Your task to perform on an android device: turn notification dots on Image 0: 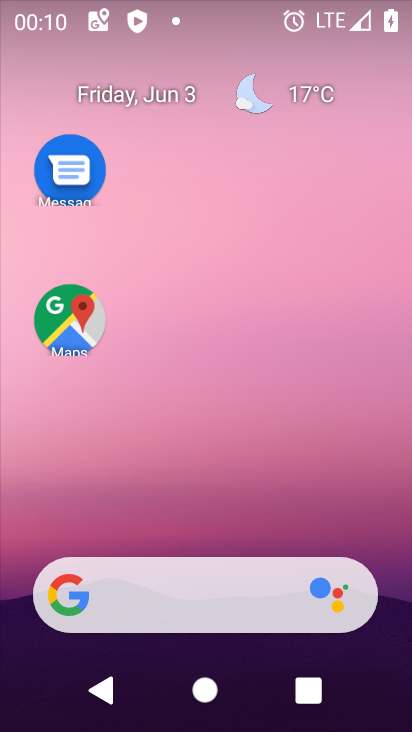
Step 0: press home button
Your task to perform on an android device: turn notification dots on Image 1: 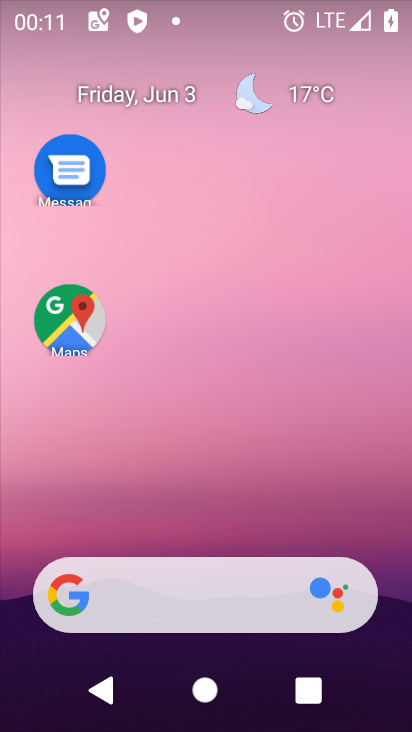
Step 1: drag from (386, 680) to (211, 52)
Your task to perform on an android device: turn notification dots on Image 2: 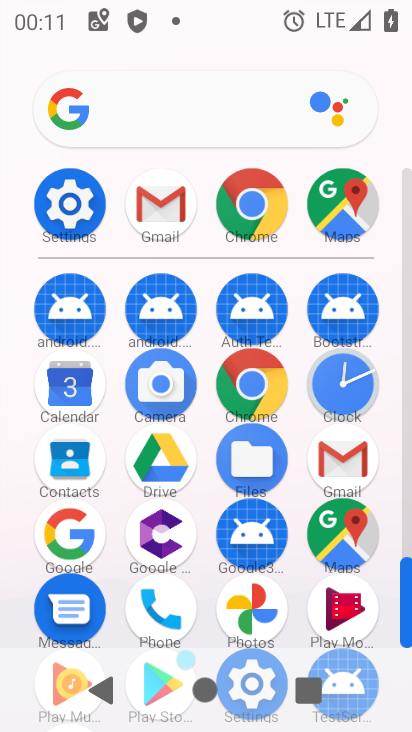
Step 2: click (70, 216)
Your task to perform on an android device: turn notification dots on Image 3: 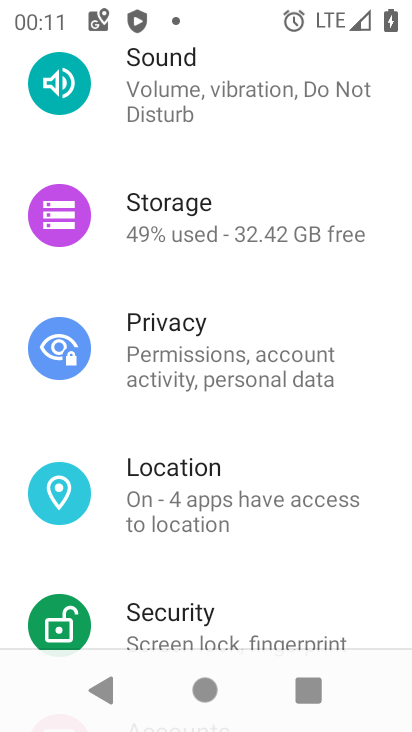
Step 3: drag from (293, 578) to (186, 119)
Your task to perform on an android device: turn notification dots on Image 4: 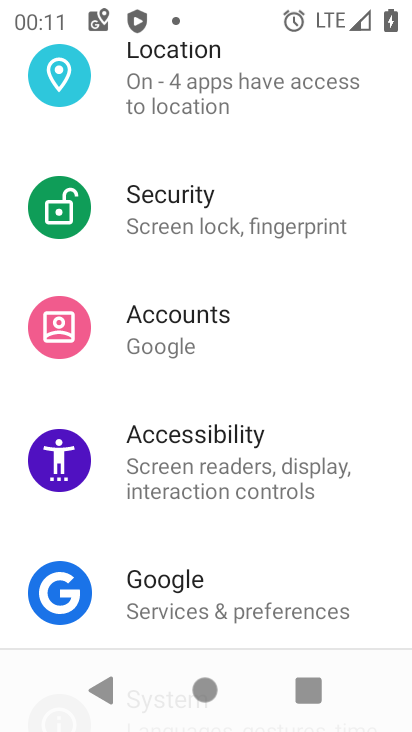
Step 4: drag from (224, 536) to (198, 295)
Your task to perform on an android device: turn notification dots on Image 5: 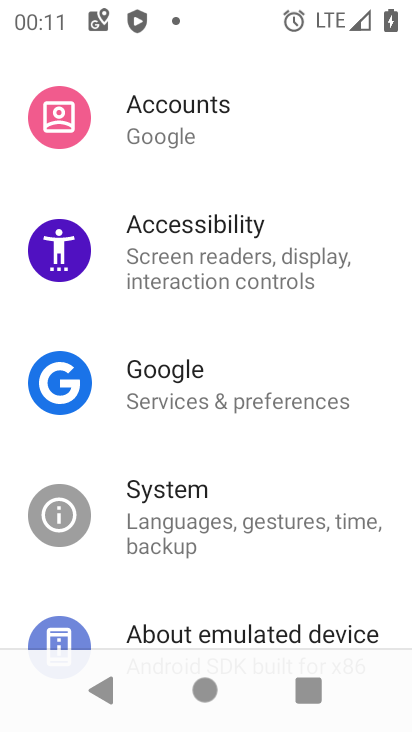
Step 5: drag from (188, 327) to (266, 724)
Your task to perform on an android device: turn notification dots on Image 6: 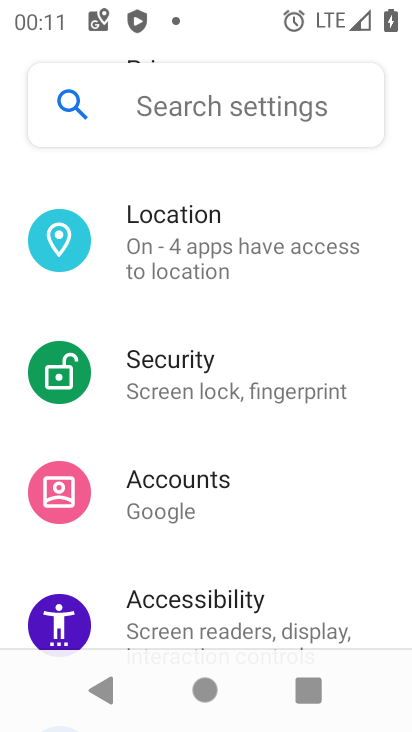
Step 6: drag from (187, 296) to (288, 704)
Your task to perform on an android device: turn notification dots on Image 7: 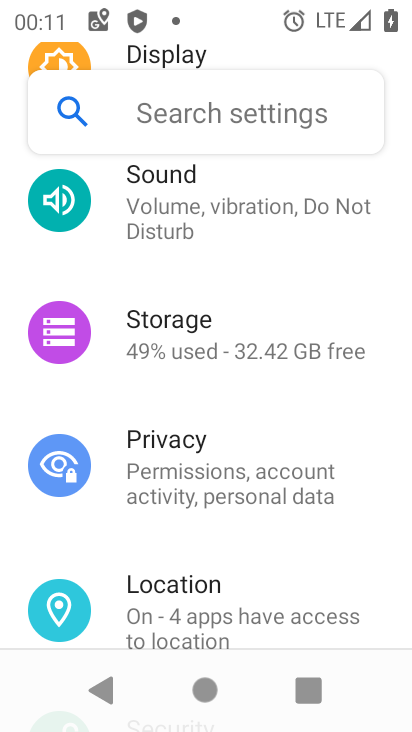
Step 7: drag from (220, 329) to (215, 638)
Your task to perform on an android device: turn notification dots on Image 8: 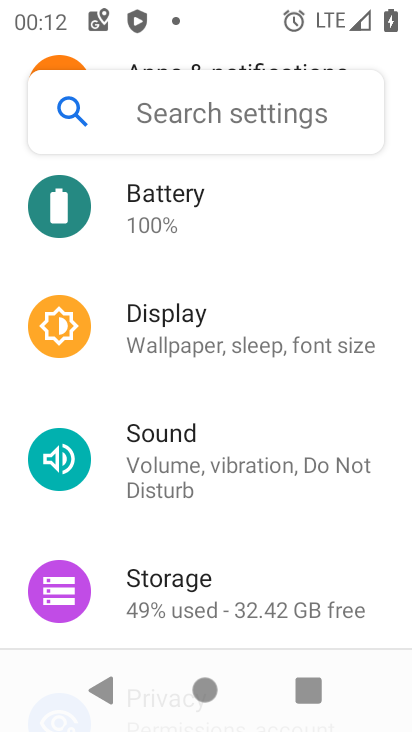
Step 8: drag from (243, 178) to (275, 656)
Your task to perform on an android device: turn notification dots on Image 9: 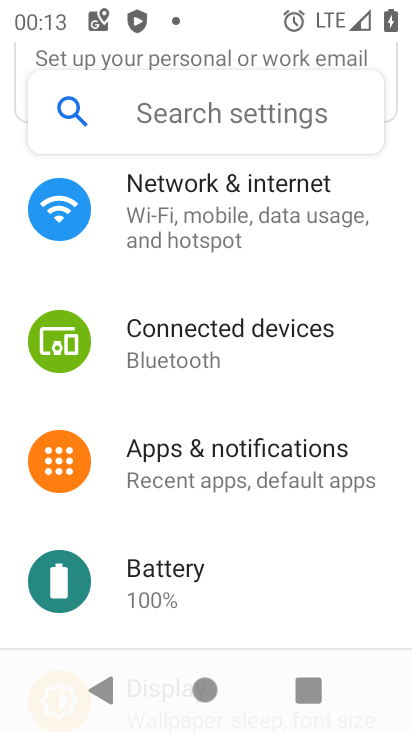
Step 9: drag from (159, 491) to (160, 360)
Your task to perform on an android device: turn notification dots on Image 10: 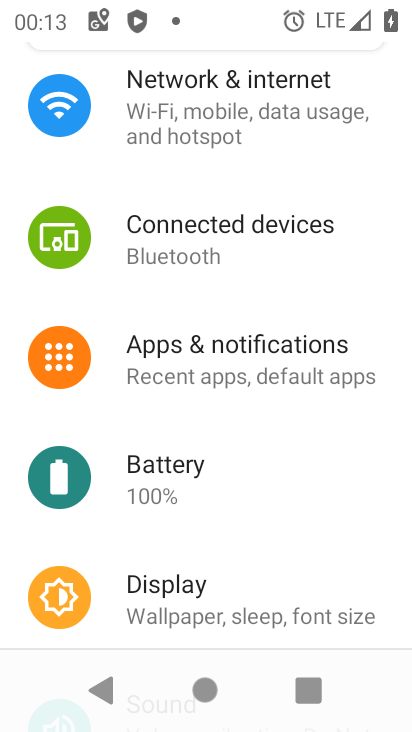
Step 10: click (160, 357)
Your task to perform on an android device: turn notification dots on Image 11: 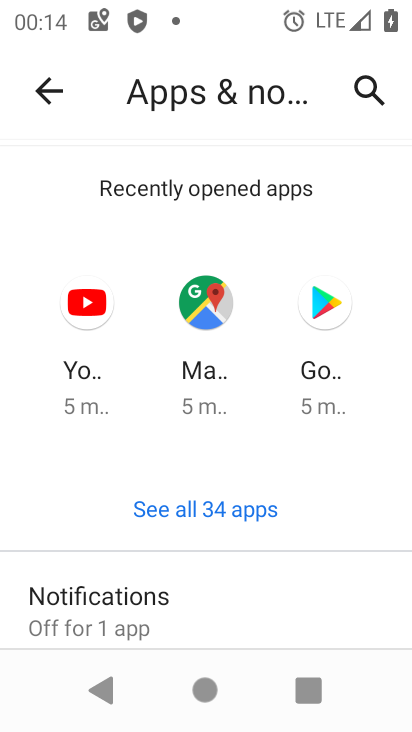
Step 11: drag from (377, 614) to (345, 504)
Your task to perform on an android device: turn notification dots on Image 12: 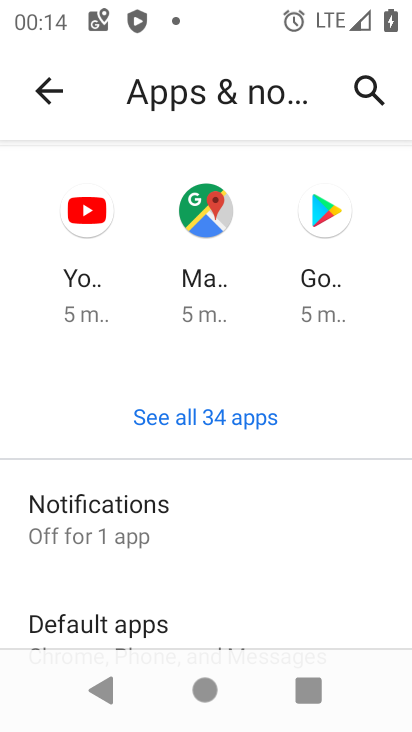
Step 12: click (174, 527)
Your task to perform on an android device: turn notification dots on Image 13: 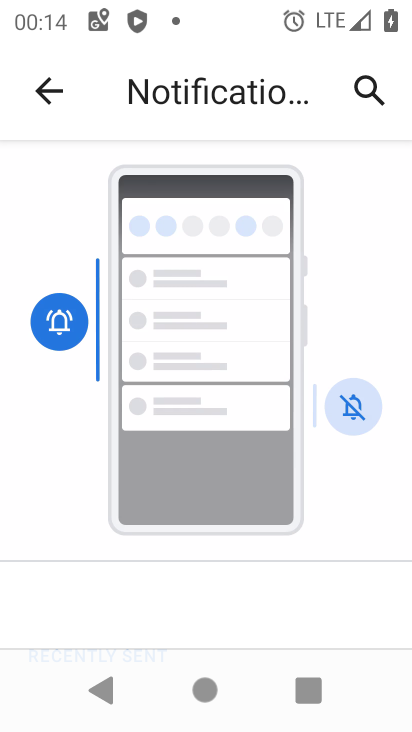
Step 13: drag from (240, 649) to (106, 143)
Your task to perform on an android device: turn notification dots on Image 14: 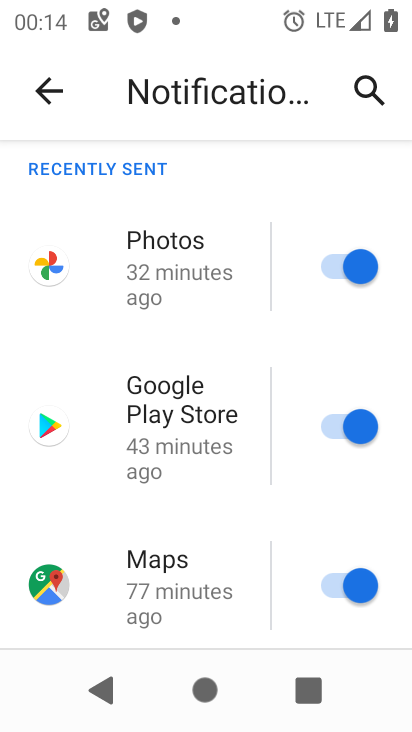
Step 14: drag from (198, 533) to (126, 141)
Your task to perform on an android device: turn notification dots on Image 15: 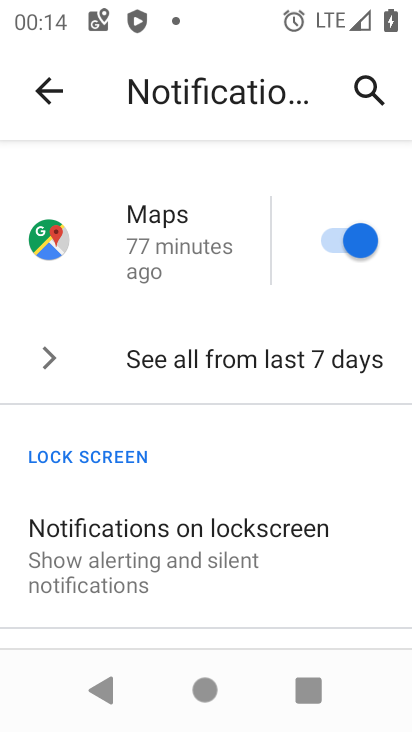
Step 15: drag from (226, 574) to (198, 419)
Your task to perform on an android device: turn notification dots on Image 16: 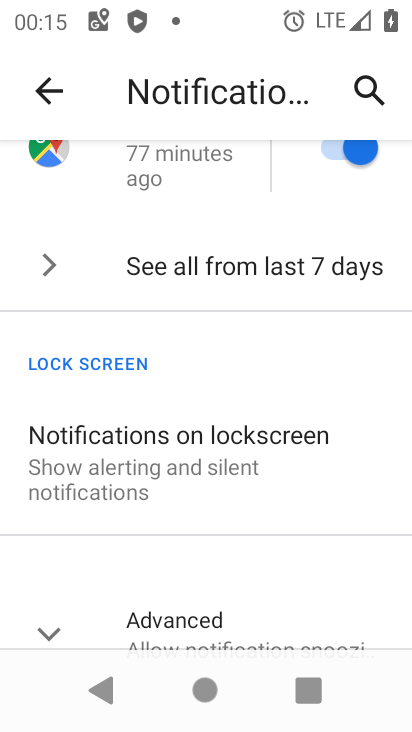
Step 16: drag from (176, 577) to (233, 147)
Your task to perform on an android device: turn notification dots on Image 17: 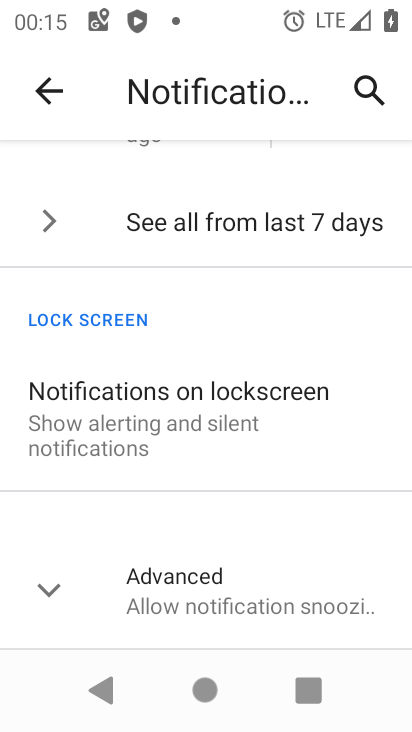
Step 17: click (208, 612)
Your task to perform on an android device: turn notification dots on Image 18: 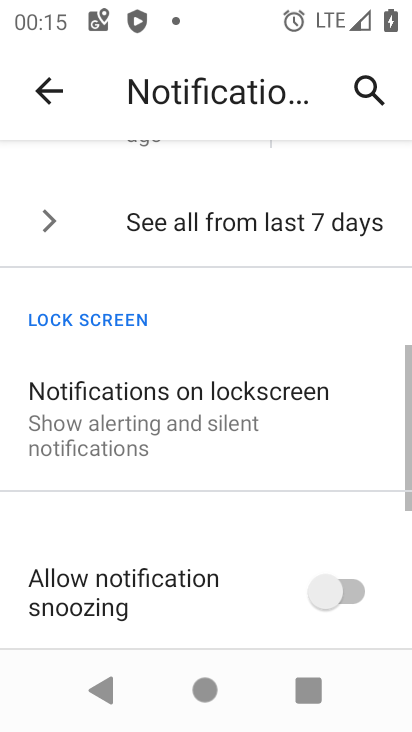
Step 18: drag from (304, 513) to (275, 86)
Your task to perform on an android device: turn notification dots on Image 19: 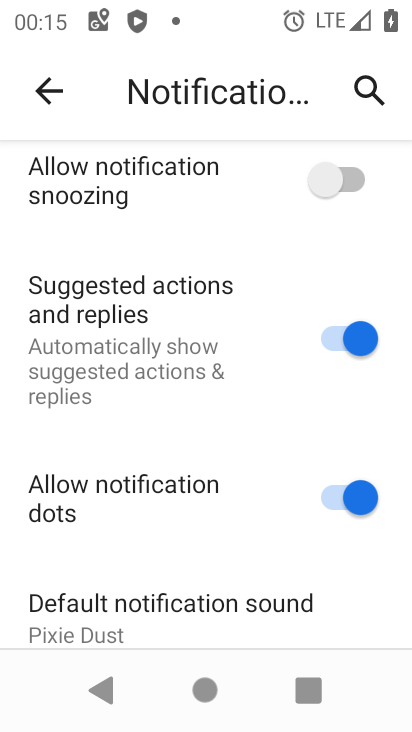
Step 19: click (181, 511)
Your task to perform on an android device: turn notification dots on Image 20: 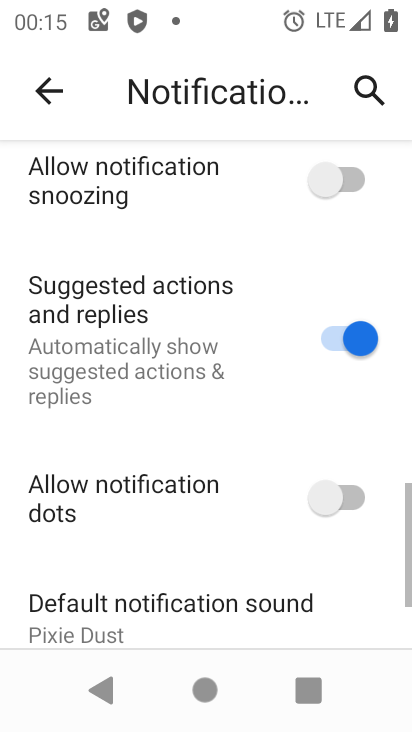
Step 20: click (181, 511)
Your task to perform on an android device: turn notification dots on Image 21: 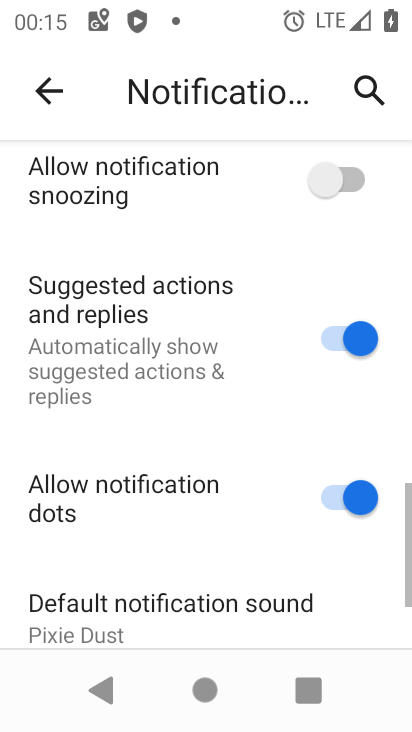
Step 21: task complete